Your task to perform on an android device: open a bookmark in the chrome app Image 0: 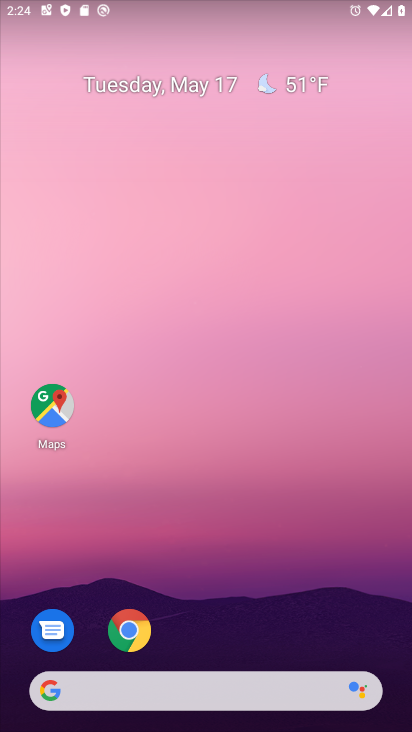
Step 0: click (137, 628)
Your task to perform on an android device: open a bookmark in the chrome app Image 1: 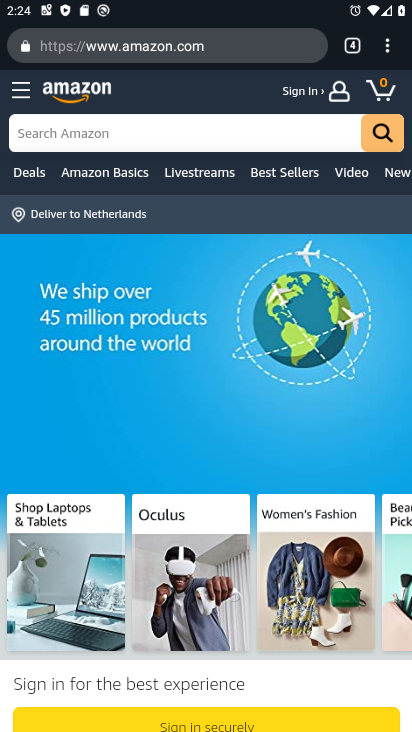
Step 1: task complete